Your task to perform on an android device: Check the news Image 0: 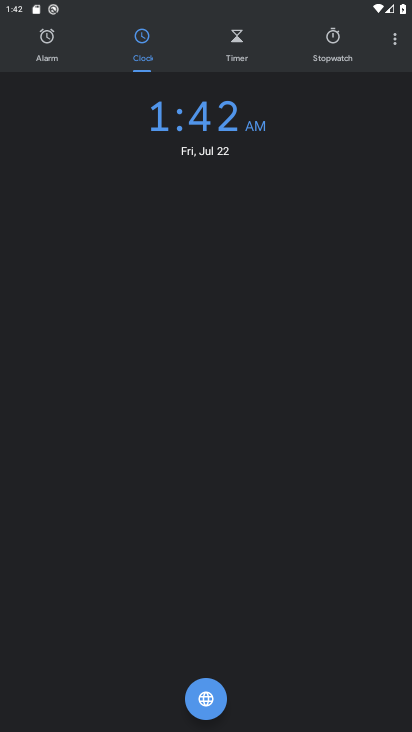
Step 0: press home button
Your task to perform on an android device: Check the news Image 1: 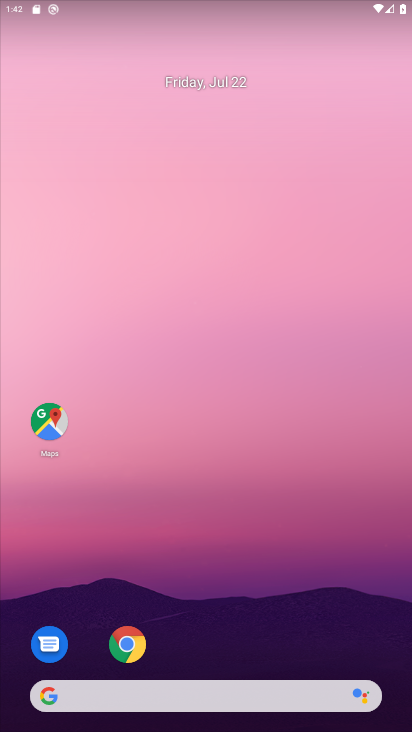
Step 1: click (164, 696)
Your task to perform on an android device: Check the news Image 2: 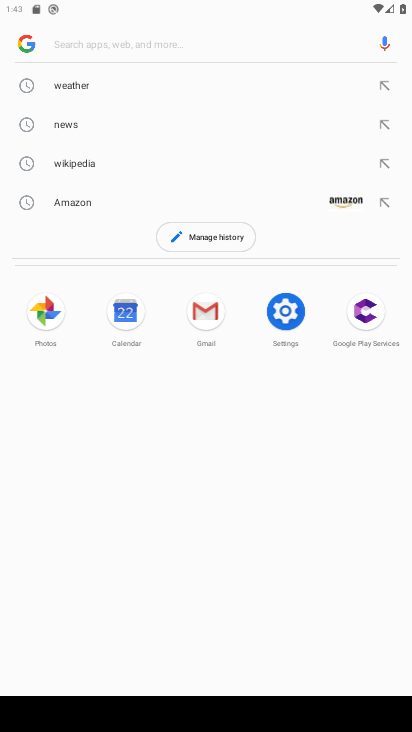
Step 2: type "news"
Your task to perform on an android device: Check the news Image 3: 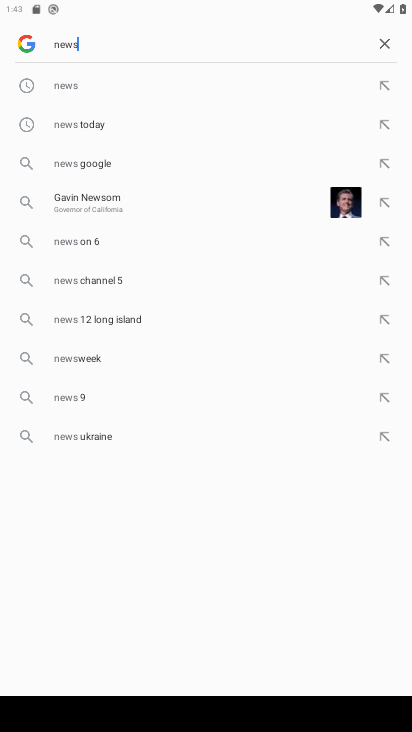
Step 3: click (52, 79)
Your task to perform on an android device: Check the news Image 4: 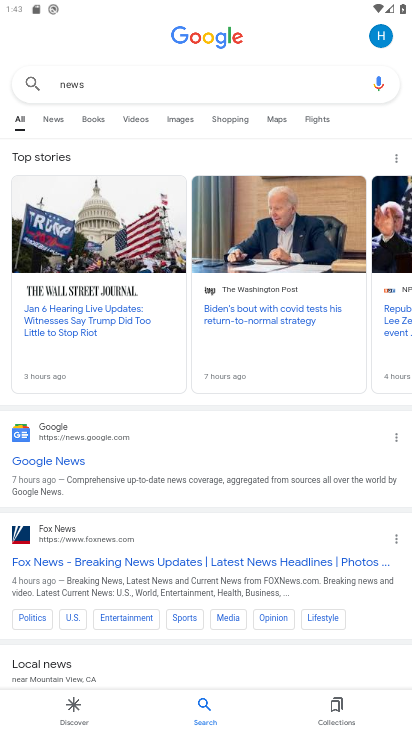
Step 4: click (64, 116)
Your task to perform on an android device: Check the news Image 5: 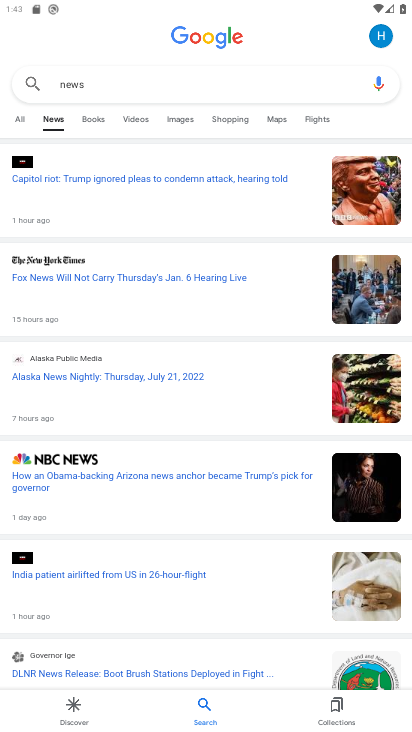
Step 5: task complete